Your task to perform on an android device: clear history in the chrome app Image 0: 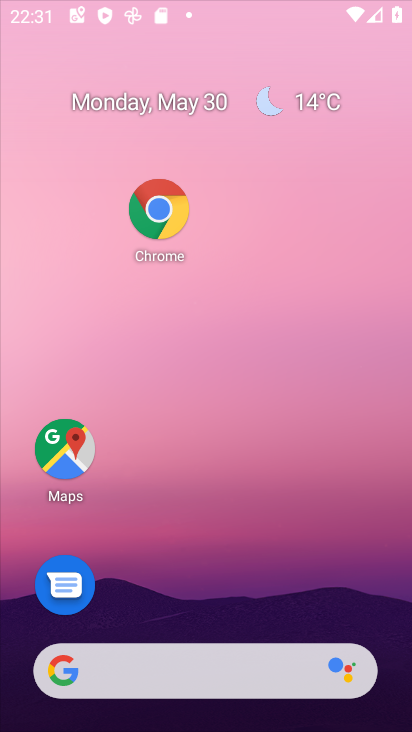
Step 0: click (355, 66)
Your task to perform on an android device: clear history in the chrome app Image 1: 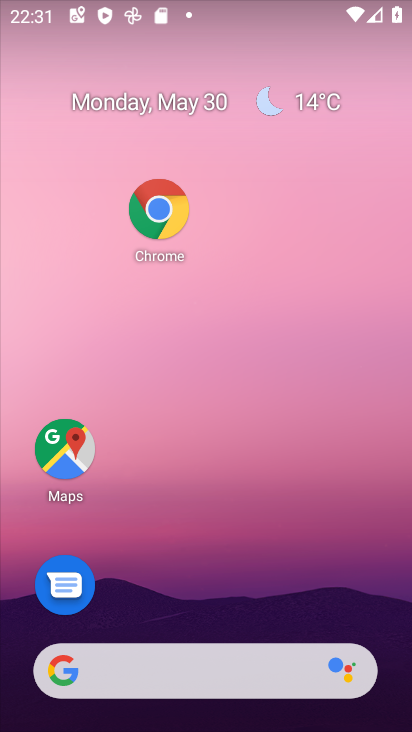
Step 1: drag from (238, 486) to (251, 114)
Your task to perform on an android device: clear history in the chrome app Image 2: 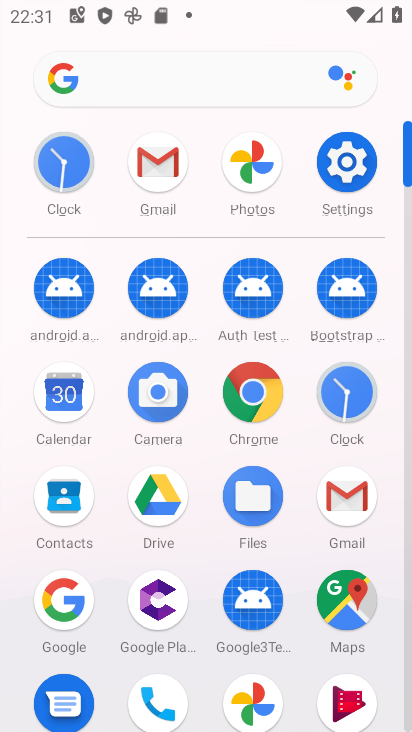
Step 2: click (248, 389)
Your task to perform on an android device: clear history in the chrome app Image 3: 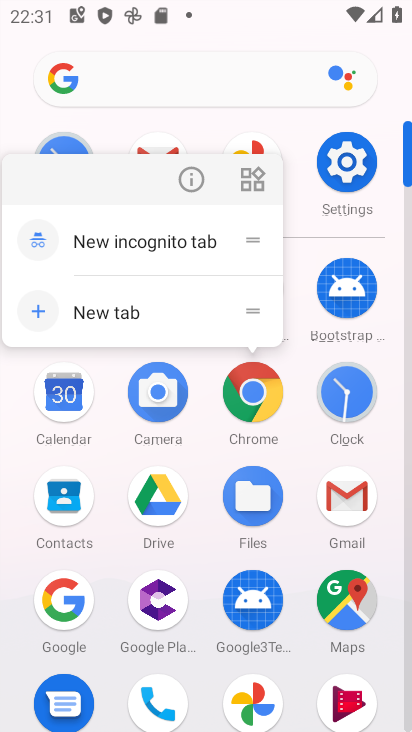
Step 3: click (188, 178)
Your task to perform on an android device: clear history in the chrome app Image 4: 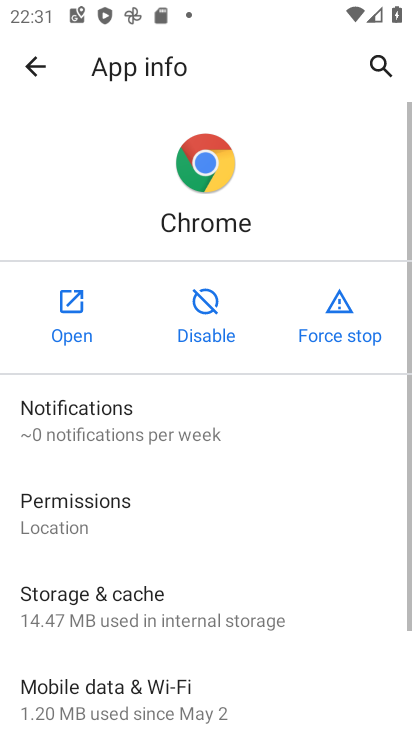
Step 4: click (87, 342)
Your task to perform on an android device: clear history in the chrome app Image 5: 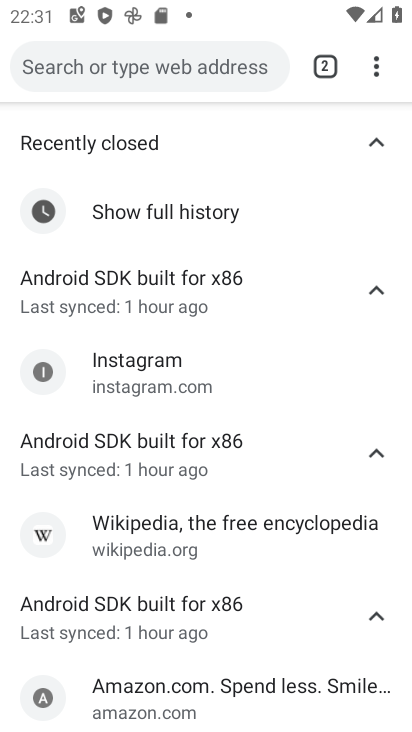
Step 5: click (376, 52)
Your task to perform on an android device: clear history in the chrome app Image 6: 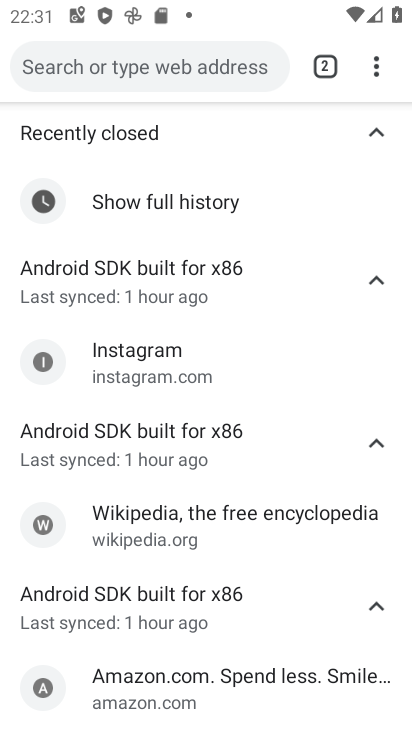
Step 6: drag from (372, 61) to (191, 384)
Your task to perform on an android device: clear history in the chrome app Image 7: 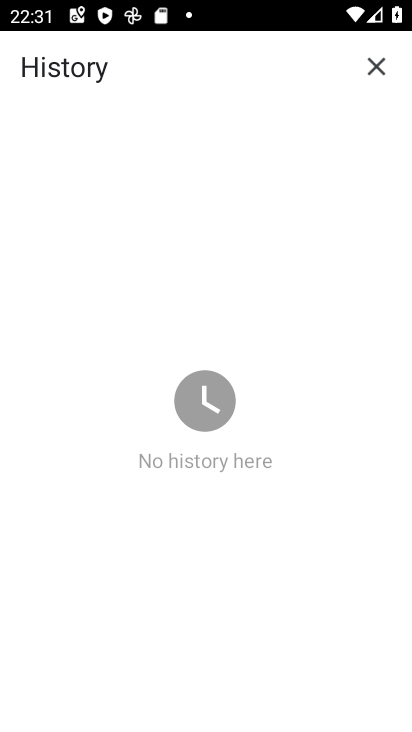
Step 7: drag from (189, 560) to (276, 252)
Your task to perform on an android device: clear history in the chrome app Image 8: 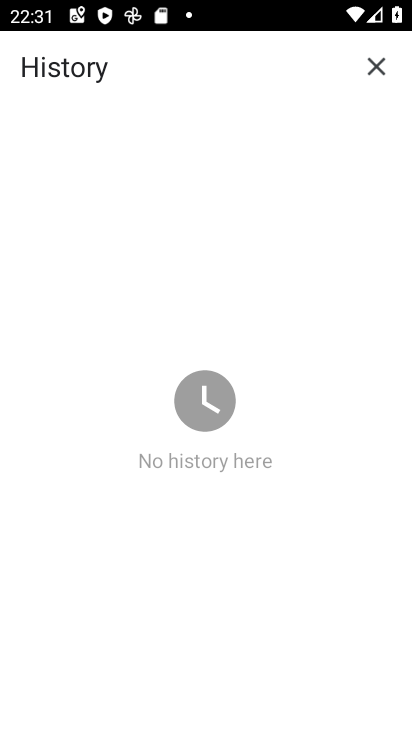
Step 8: drag from (115, 332) to (194, 559)
Your task to perform on an android device: clear history in the chrome app Image 9: 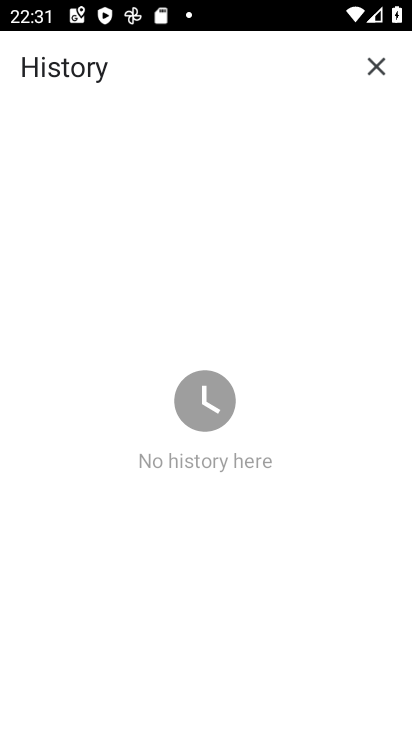
Step 9: drag from (240, 506) to (266, 324)
Your task to perform on an android device: clear history in the chrome app Image 10: 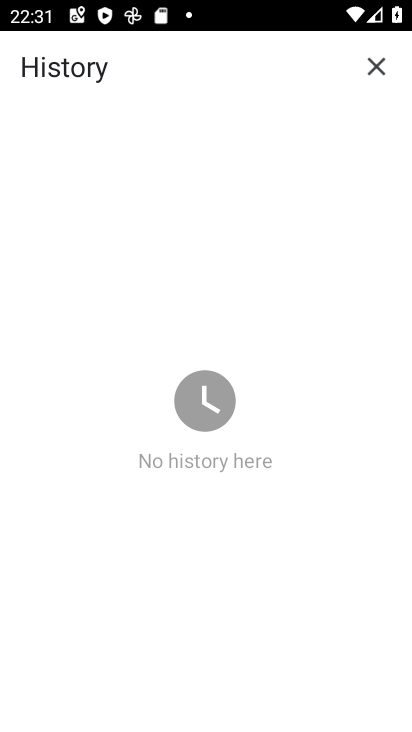
Step 10: click (265, 272)
Your task to perform on an android device: clear history in the chrome app Image 11: 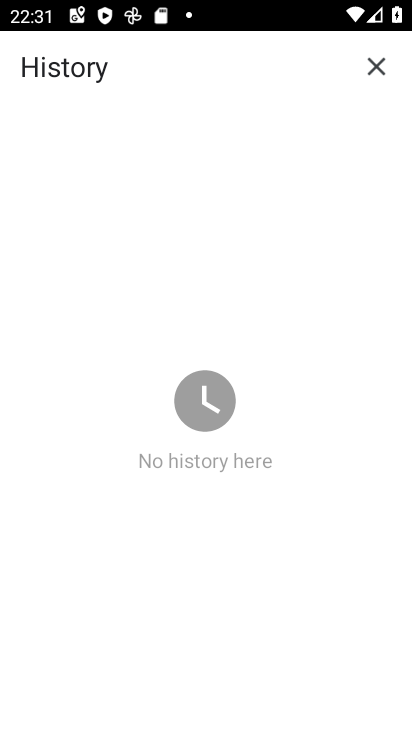
Step 11: click (309, 476)
Your task to perform on an android device: clear history in the chrome app Image 12: 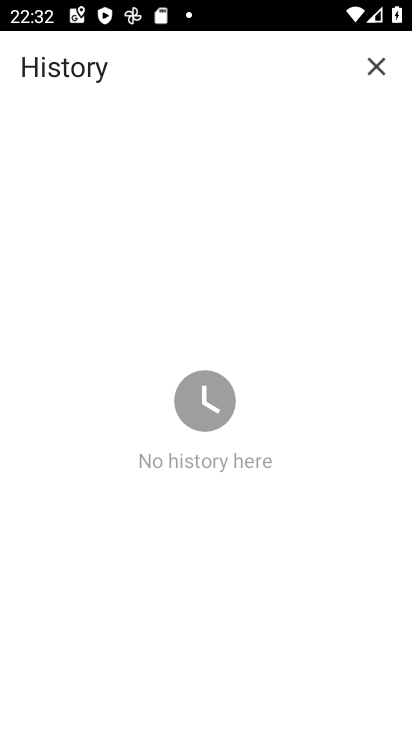
Step 12: click (309, 476)
Your task to perform on an android device: clear history in the chrome app Image 13: 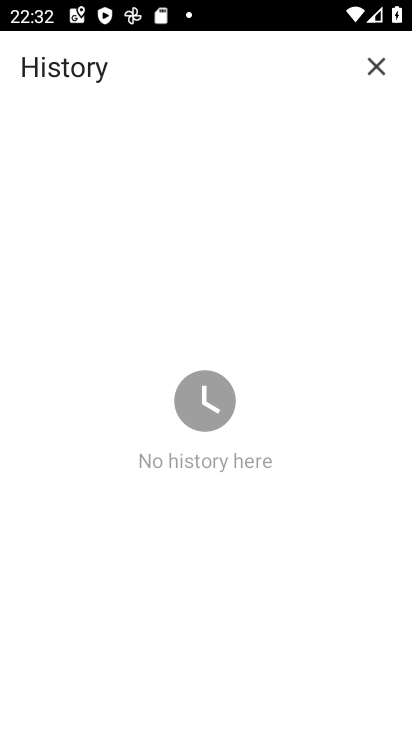
Step 13: click (380, 66)
Your task to perform on an android device: clear history in the chrome app Image 14: 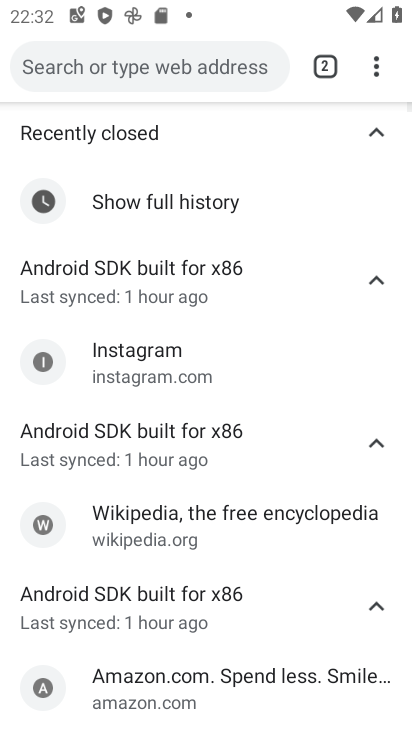
Step 14: drag from (137, 173) to (301, 721)
Your task to perform on an android device: clear history in the chrome app Image 15: 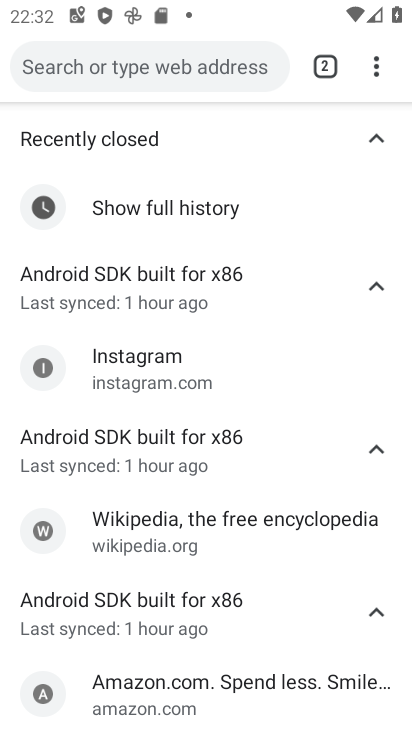
Step 15: click (379, 64)
Your task to perform on an android device: clear history in the chrome app Image 16: 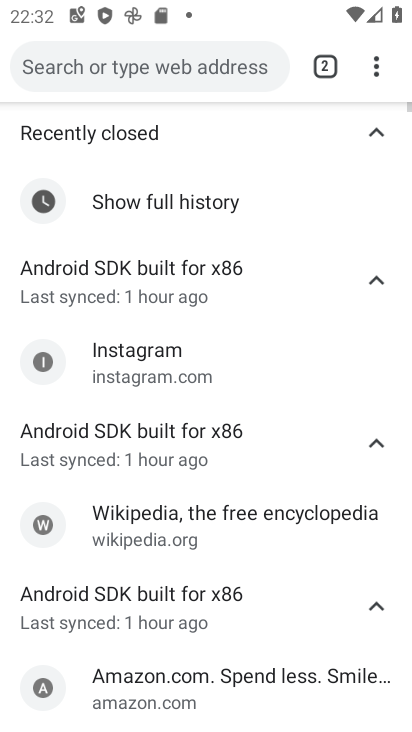
Step 16: task complete